Your task to perform on an android device: Open settings Image 0: 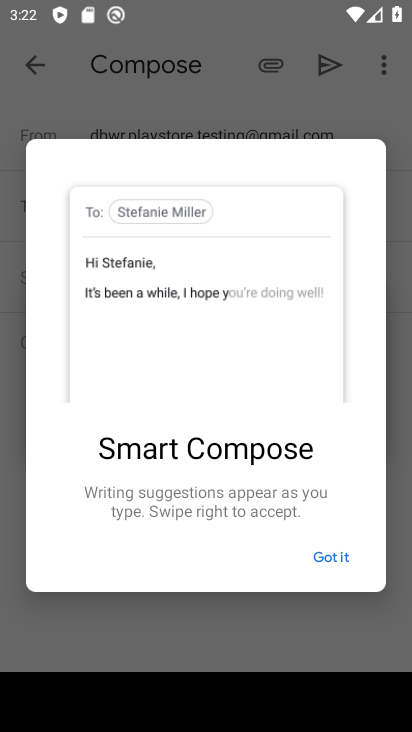
Step 0: press home button
Your task to perform on an android device: Open settings Image 1: 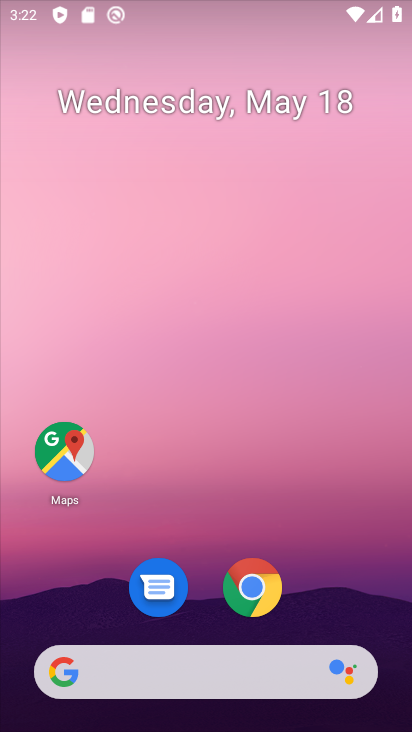
Step 1: drag from (350, 540) to (297, 100)
Your task to perform on an android device: Open settings Image 2: 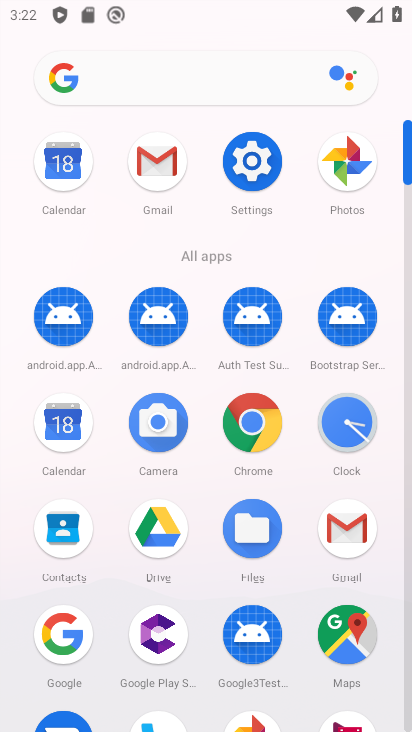
Step 2: click (268, 157)
Your task to perform on an android device: Open settings Image 3: 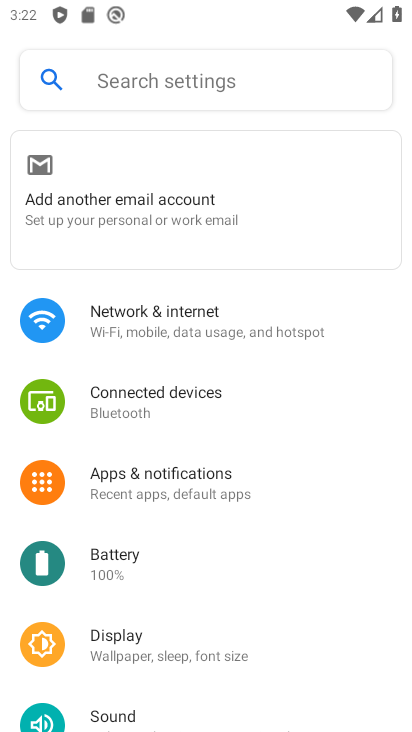
Step 3: task complete